Your task to perform on an android device: uninstall "Duolingo: language lessons" Image 0: 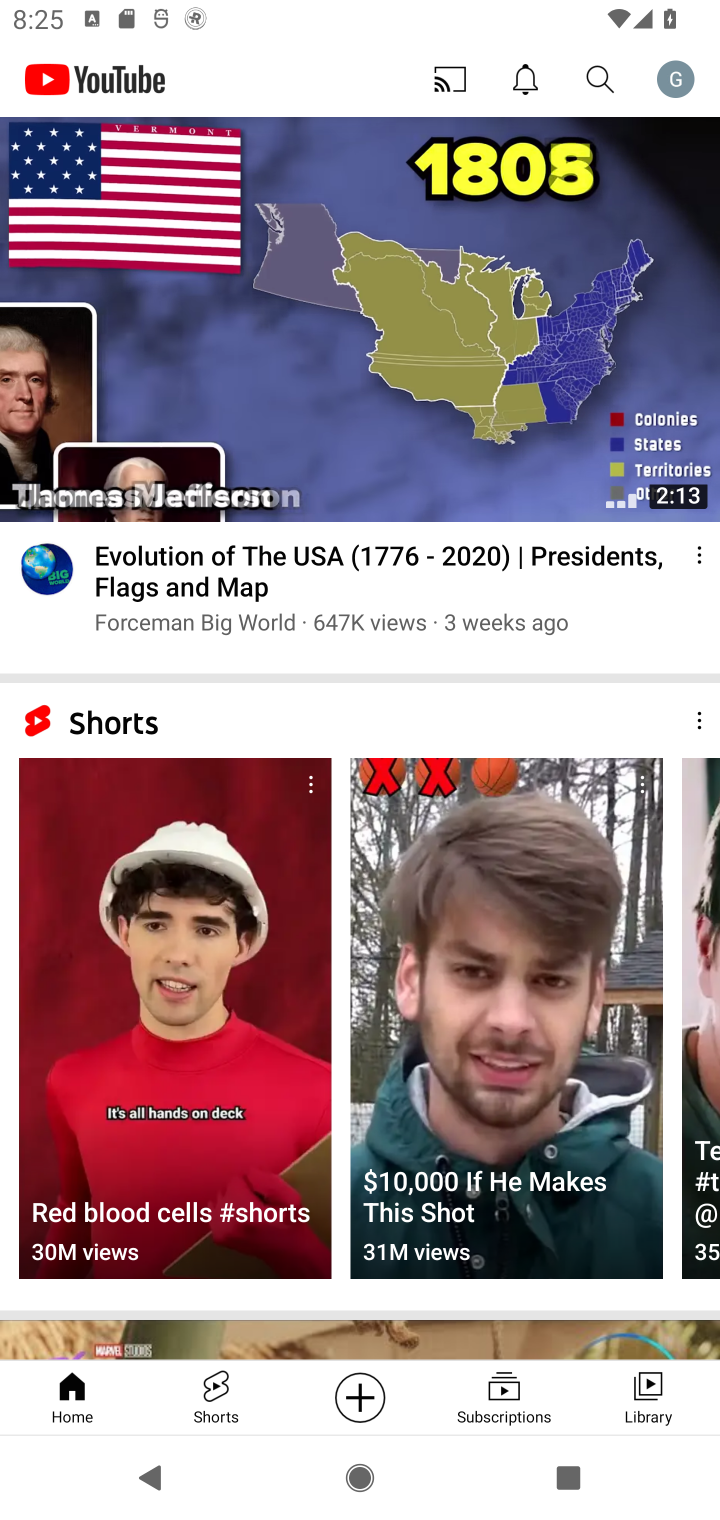
Step 0: press home button
Your task to perform on an android device: uninstall "Duolingo: language lessons" Image 1: 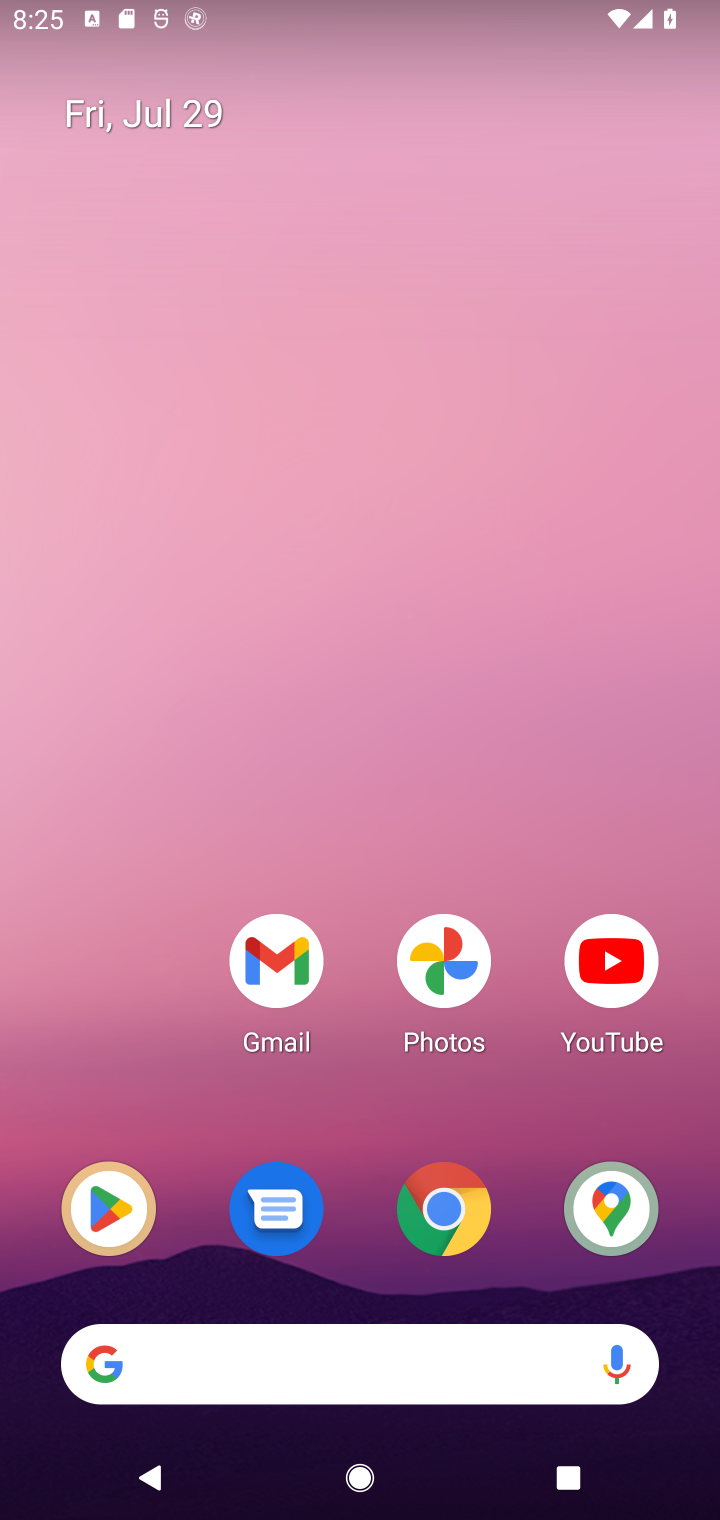
Step 1: click (101, 1232)
Your task to perform on an android device: uninstall "Duolingo: language lessons" Image 2: 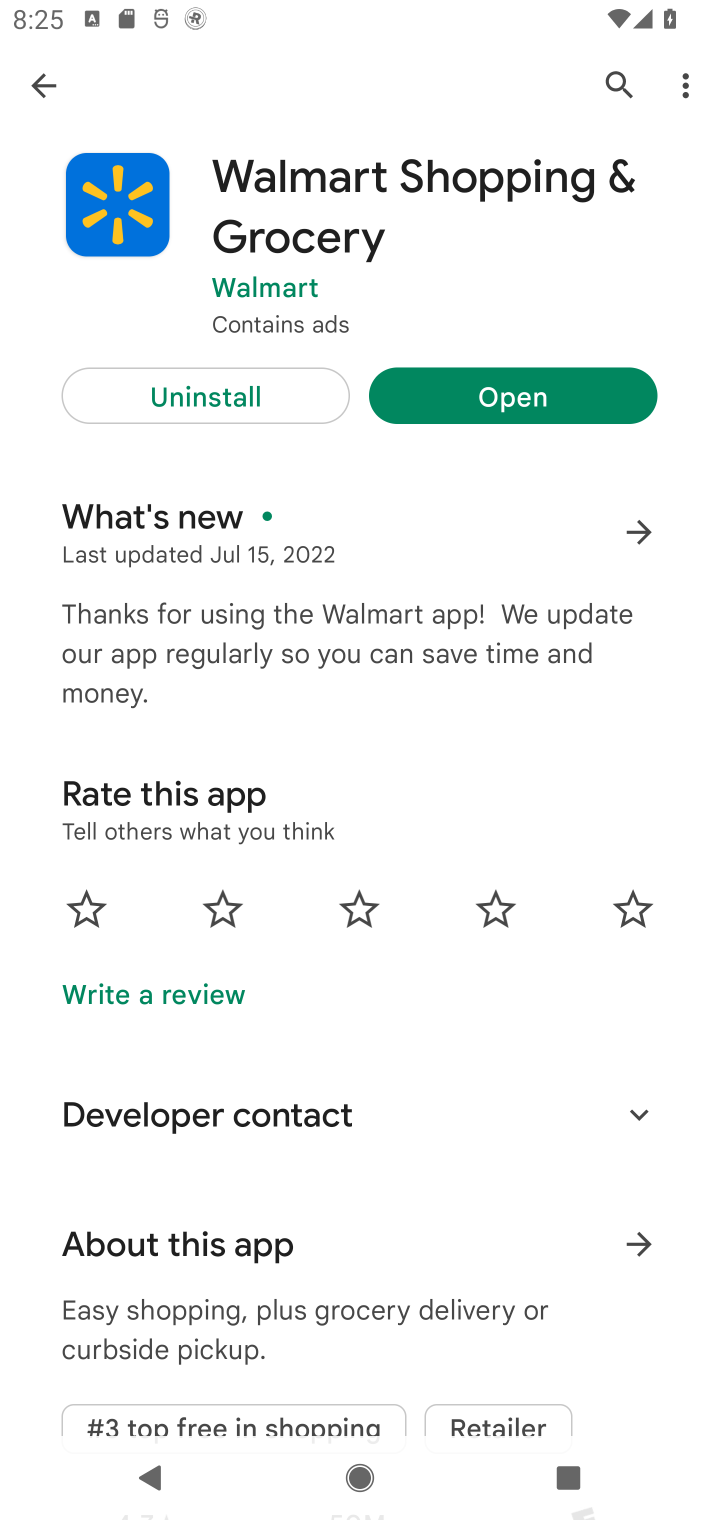
Step 2: click (623, 83)
Your task to perform on an android device: uninstall "Duolingo: language lessons" Image 3: 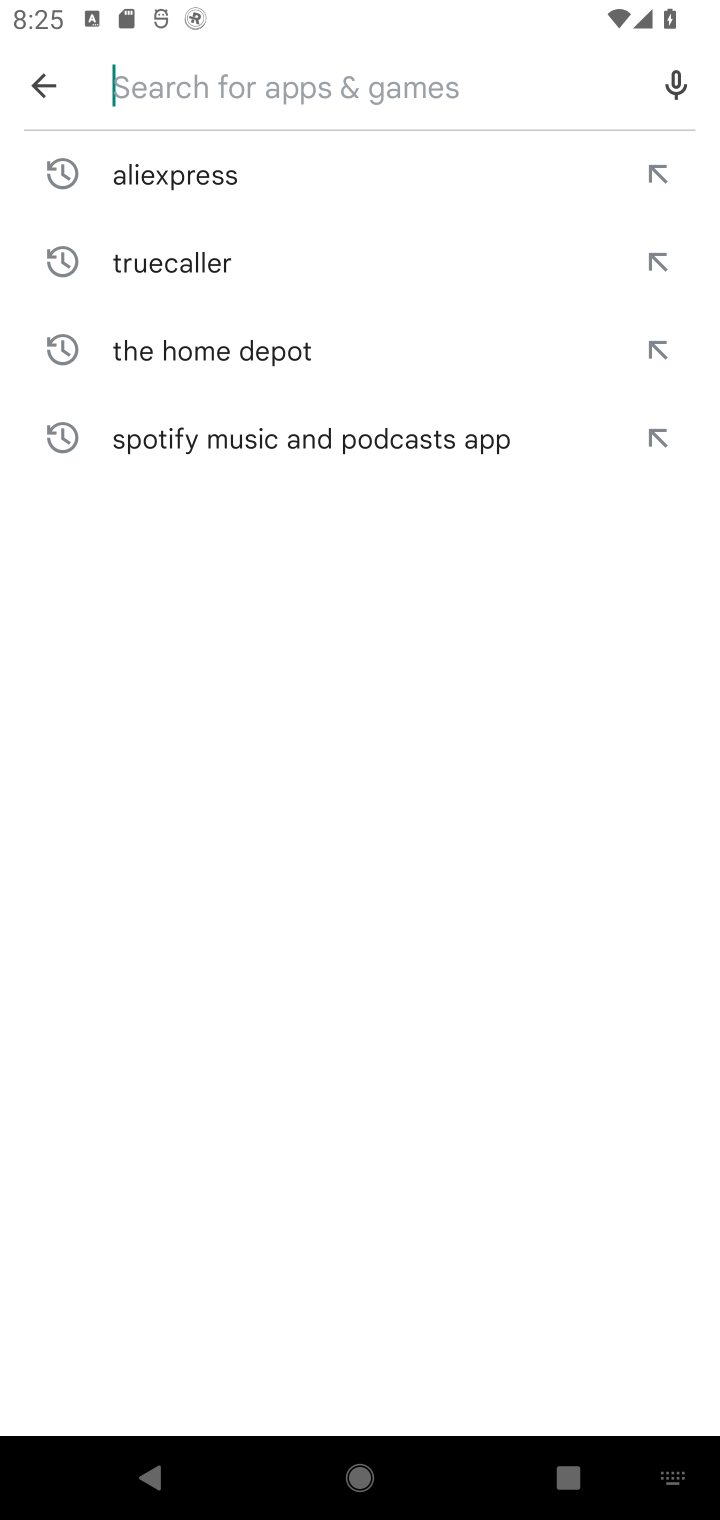
Step 3: type "Duolingo: language lessons"
Your task to perform on an android device: uninstall "Duolingo: language lessons" Image 4: 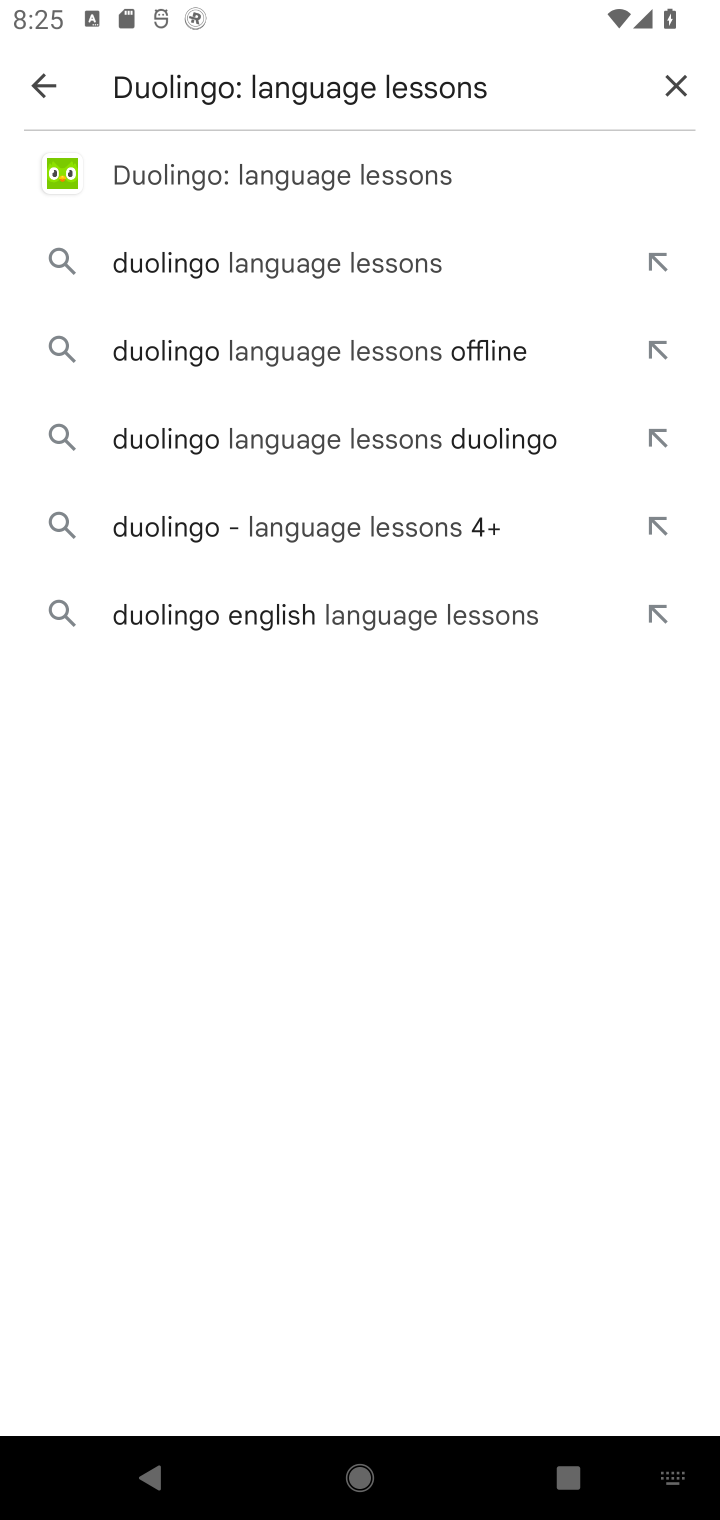
Step 4: click (245, 184)
Your task to perform on an android device: uninstall "Duolingo: language lessons" Image 5: 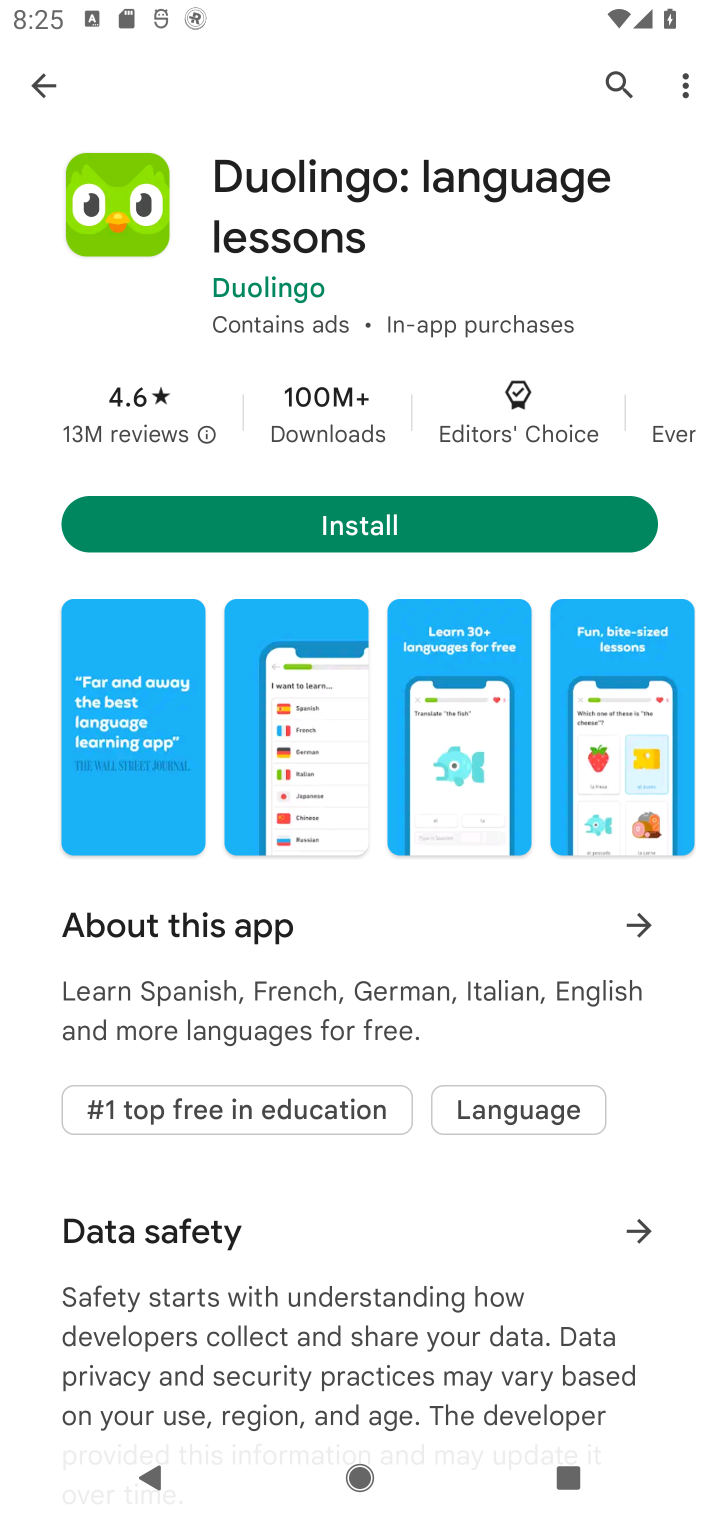
Step 5: task complete